Your task to perform on an android device: Turn on the flashlight Image 0: 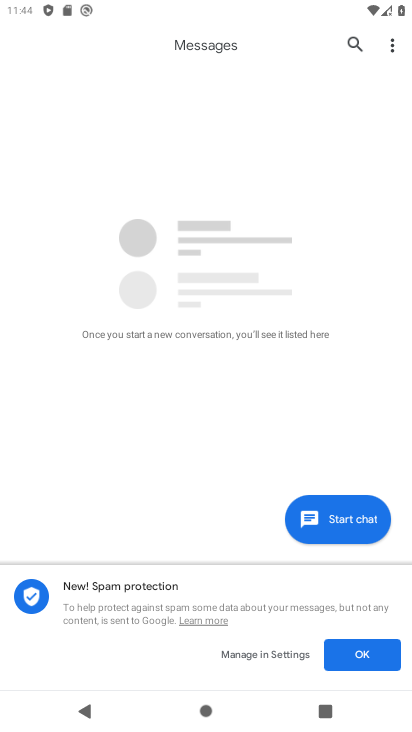
Step 0: press home button
Your task to perform on an android device: Turn on the flashlight Image 1: 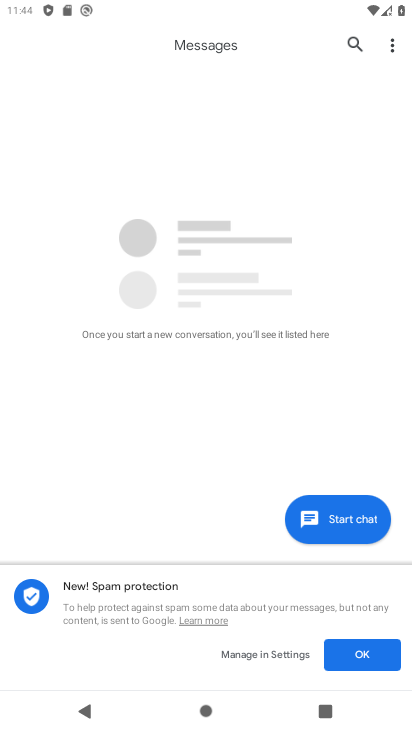
Step 1: press home button
Your task to perform on an android device: Turn on the flashlight Image 2: 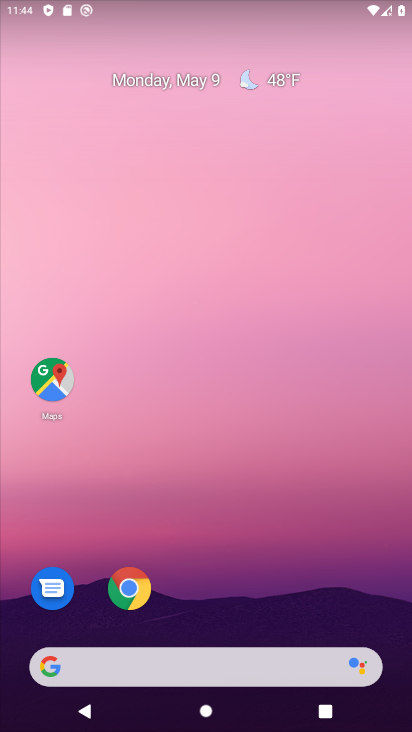
Step 2: drag from (236, 559) to (49, 120)
Your task to perform on an android device: Turn on the flashlight Image 3: 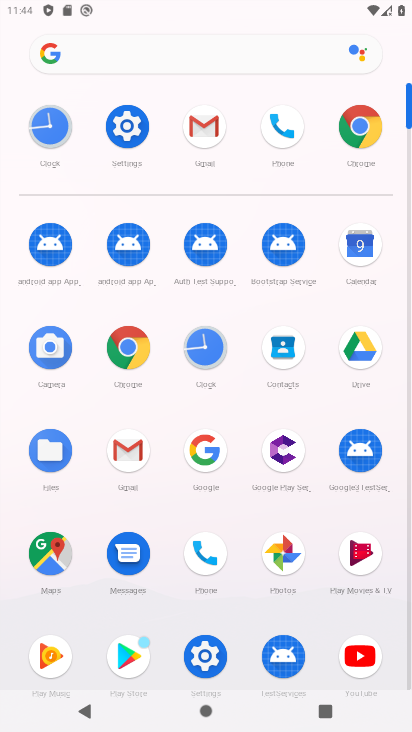
Step 3: click (120, 142)
Your task to perform on an android device: Turn on the flashlight Image 4: 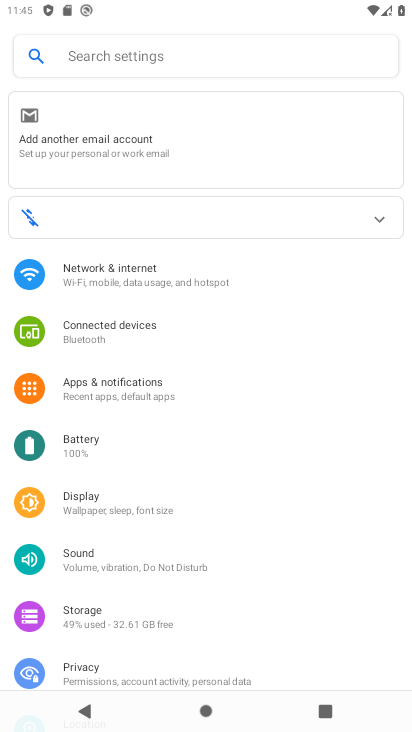
Step 4: task complete